Your task to perform on an android device: all mails in gmail Image 0: 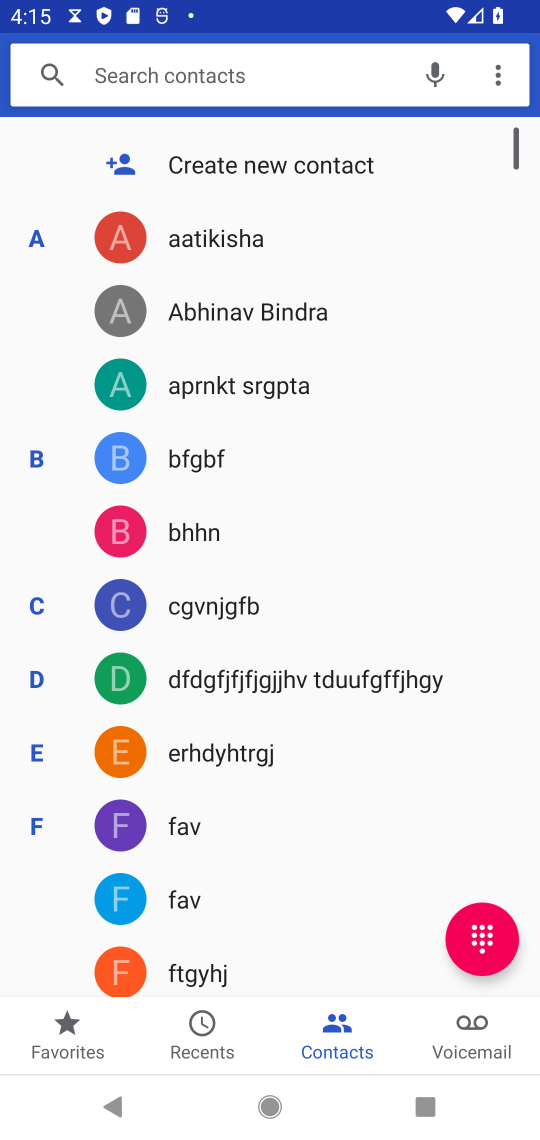
Step 0: press home button
Your task to perform on an android device: all mails in gmail Image 1: 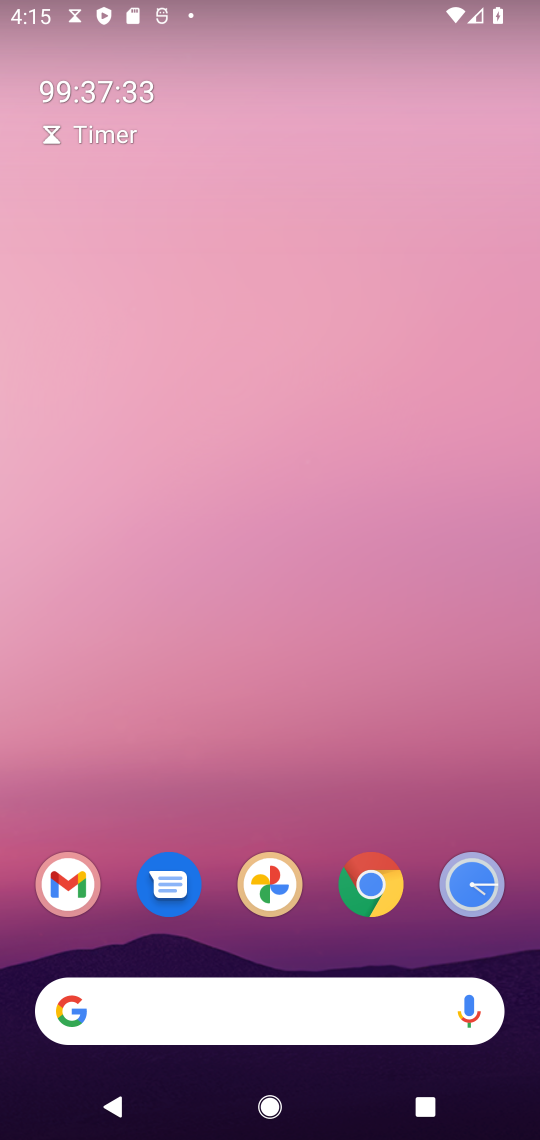
Step 1: drag from (232, 913) to (230, 211)
Your task to perform on an android device: all mails in gmail Image 2: 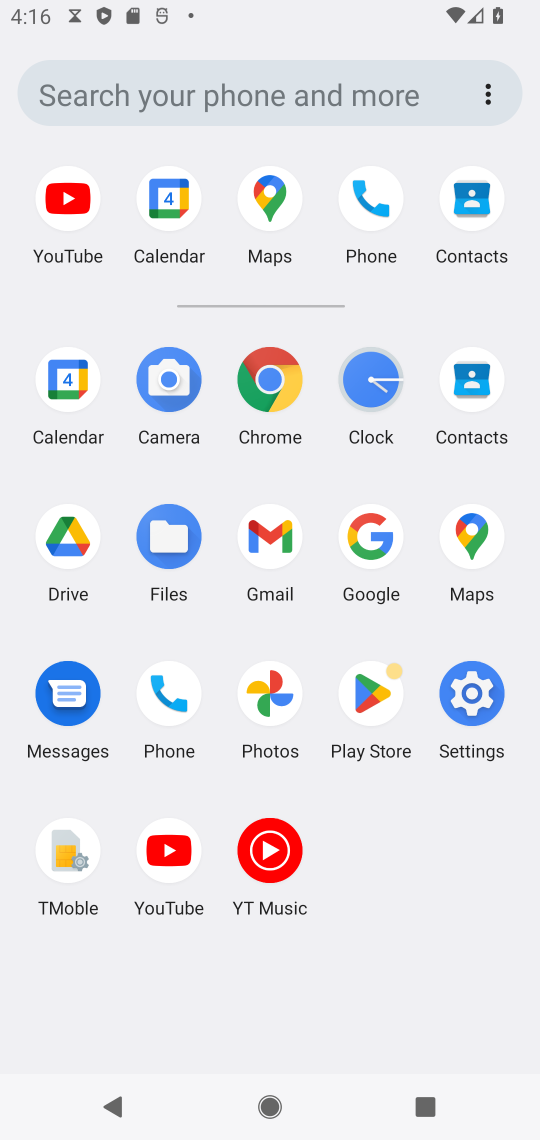
Step 2: click (265, 533)
Your task to perform on an android device: all mails in gmail Image 3: 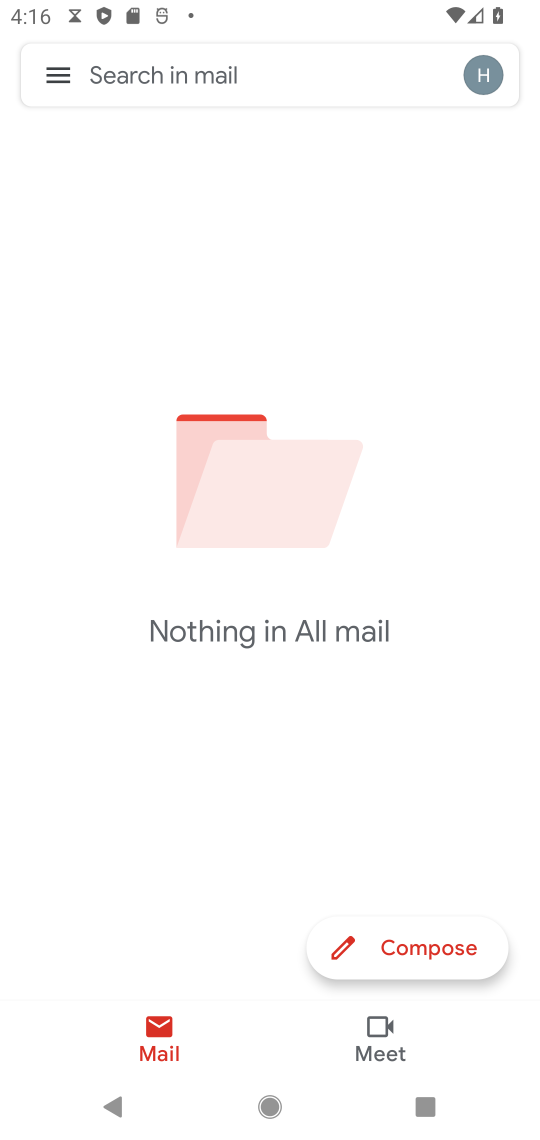
Step 3: click (49, 66)
Your task to perform on an android device: all mails in gmail Image 4: 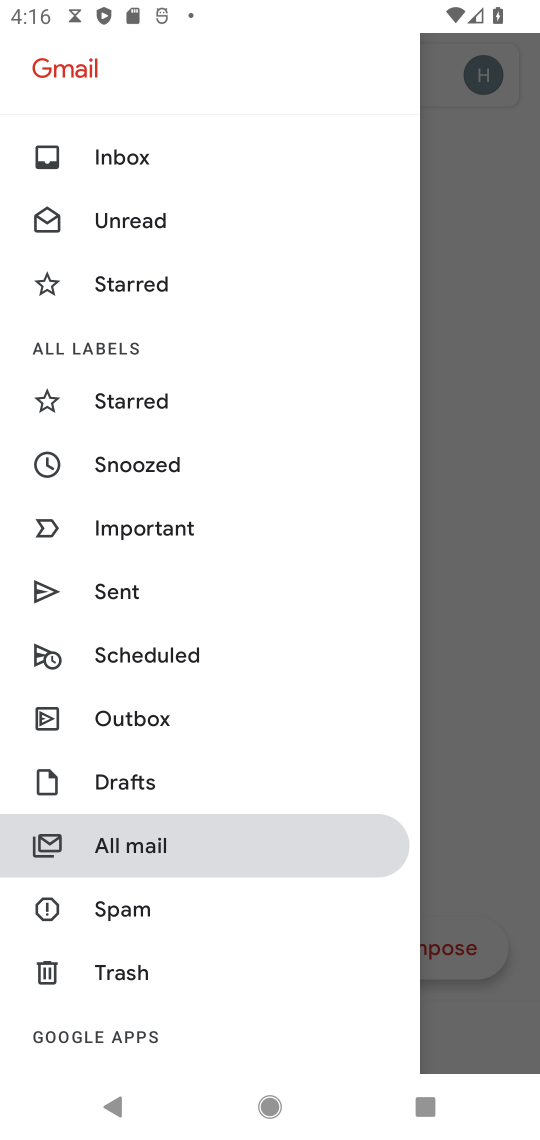
Step 4: click (225, 834)
Your task to perform on an android device: all mails in gmail Image 5: 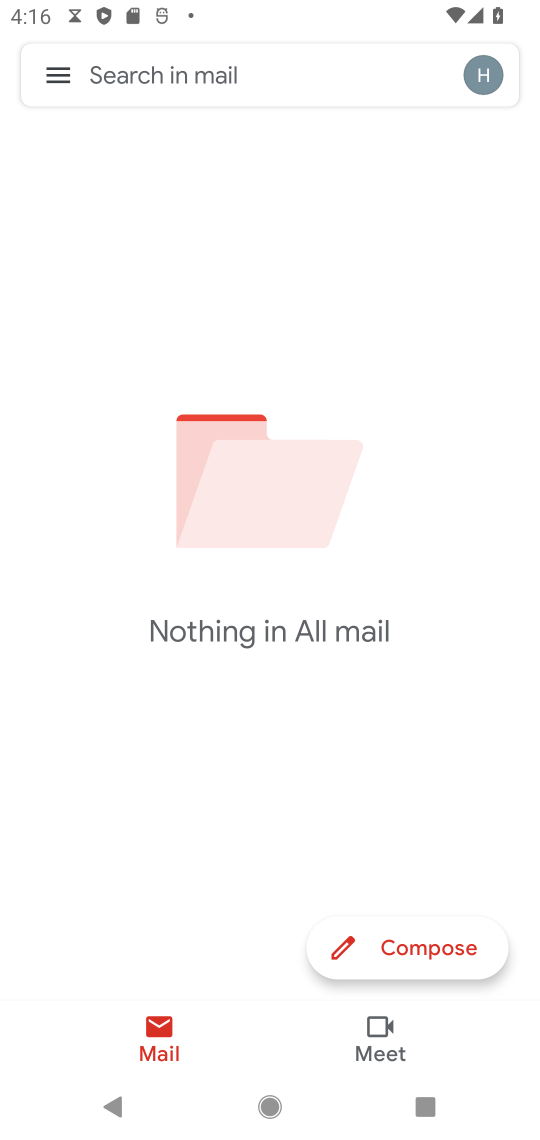
Step 5: task complete